Your task to perform on an android device: open sync settings in chrome Image 0: 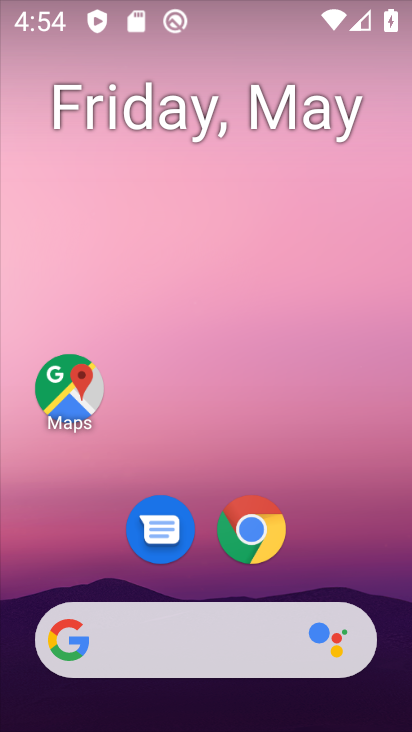
Step 0: click (246, 538)
Your task to perform on an android device: open sync settings in chrome Image 1: 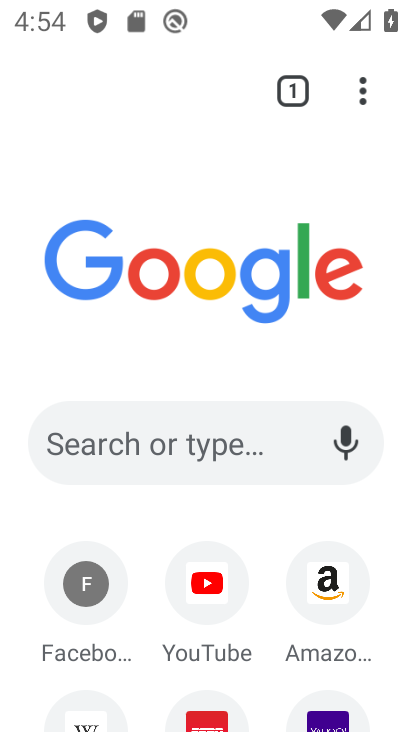
Step 1: click (361, 79)
Your task to perform on an android device: open sync settings in chrome Image 2: 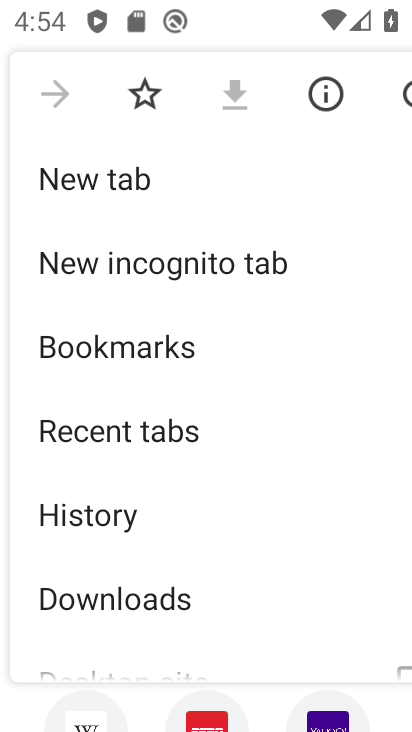
Step 2: drag from (184, 502) to (305, 48)
Your task to perform on an android device: open sync settings in chrome Image 3: 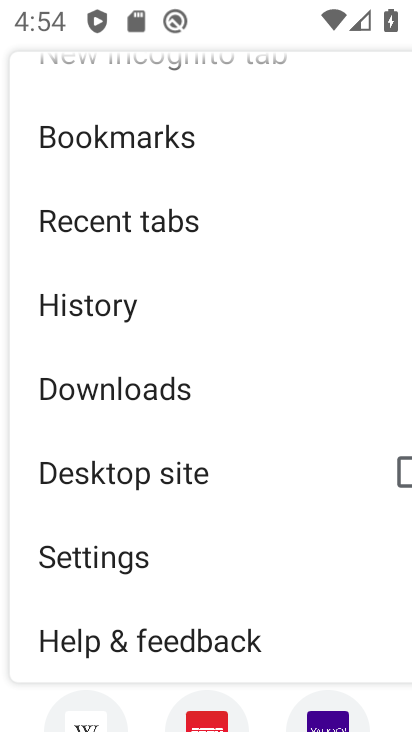
Step 3: click (71, 551)
Your task to perform on an android device: open sync settings in chrome Image 4: 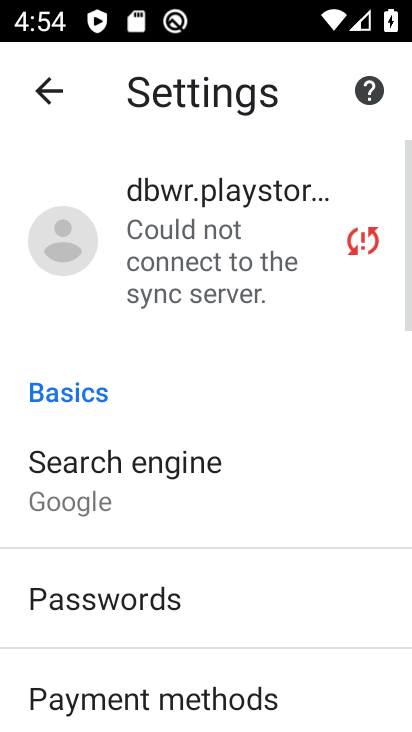
Step 4: drag from (71, 551) to (141, 306)
Your task to perform on an android device: open sync settings in chrome Image 5: 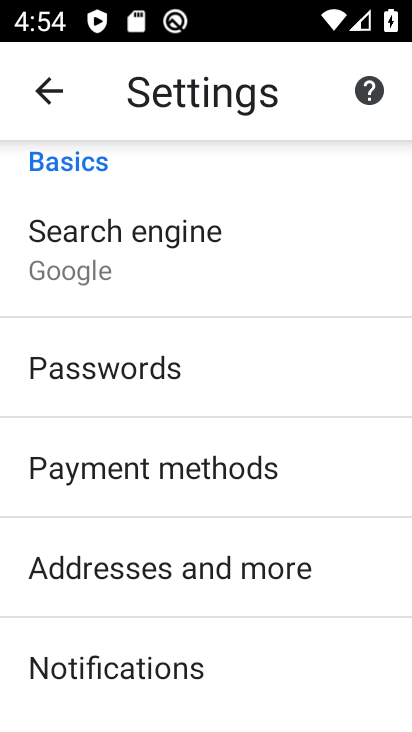
Step 5: drag from (157, 279) to (105, 695)
Your task to perform on an android device: open sync settings in chrome Image 6: 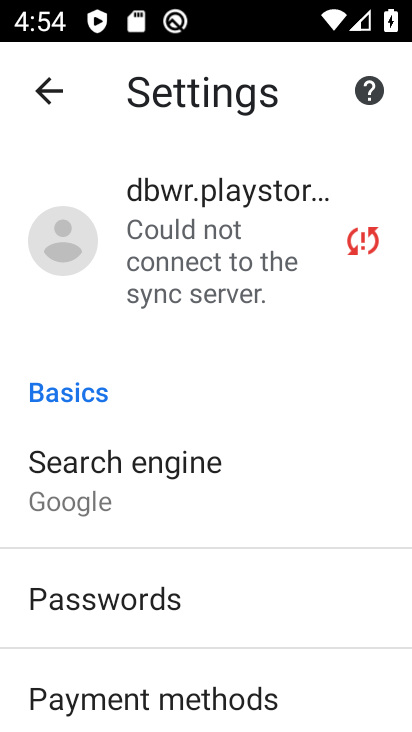
Step 6: click (170, 258)
Your task to perform on an android device: open sync settings in chrome Image 7: 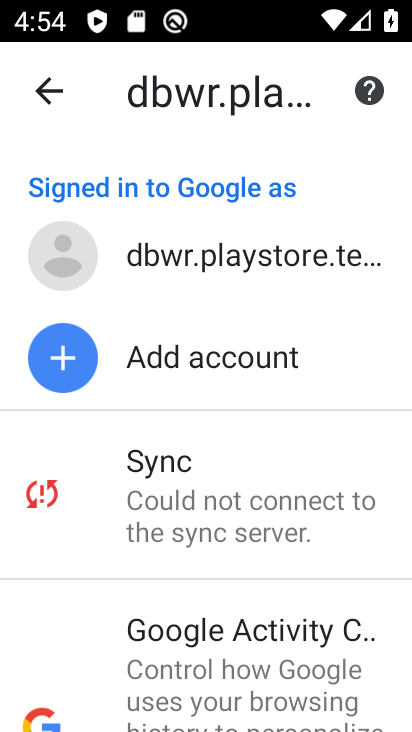
Step 7: click (240, 506)
Your task to perform on an android device: open sync settings in chrome Image 8: 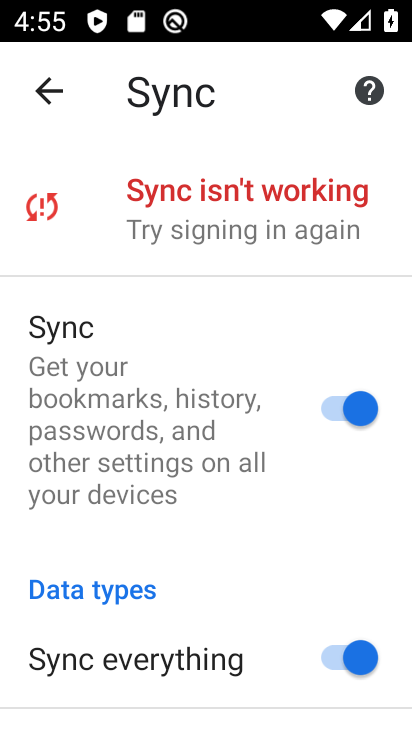
Step 8: task complete